Your task to perform on an android device: turn on priority inbox in the gmail app Image 0: 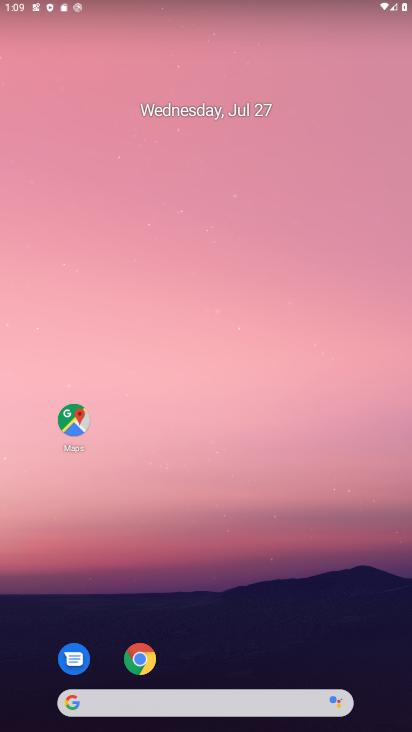
Step 0: drag from (227, 212) to (264, 4)
Your task to perform on an android device: turn on priority inbox in the gmail app Image 1: 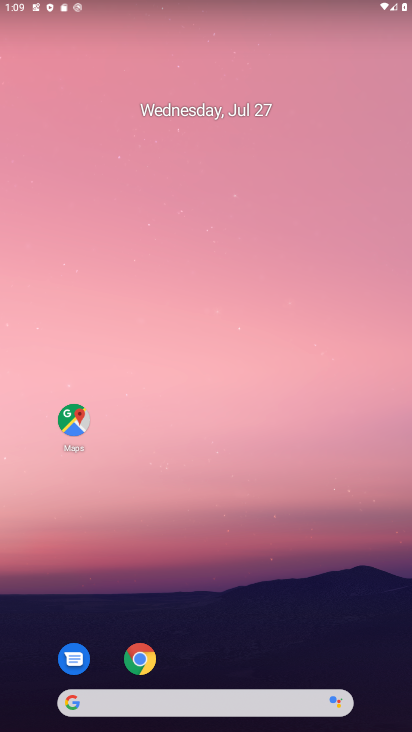
Step 1: drag from (270, 714) to (220, 102)
Your task to perform on an android device: turn on priority inbox in the gmail app Image 2: 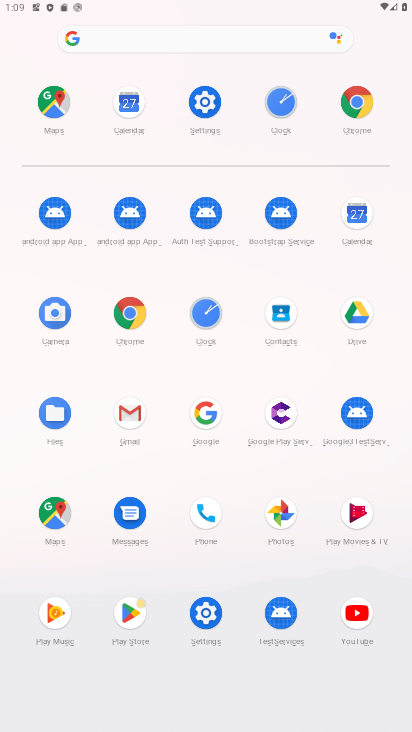
Step 2: click (132, 402)
Your task to perform on an android device: turn on priority inbox in the gmail app Image 3: 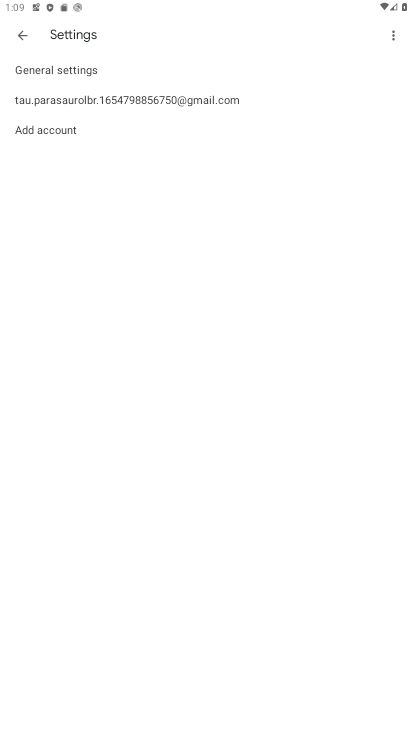
Step 3: click (91, 93)
Your task to perform on an android device: turn on priority inbox in the gmail app Image 4: 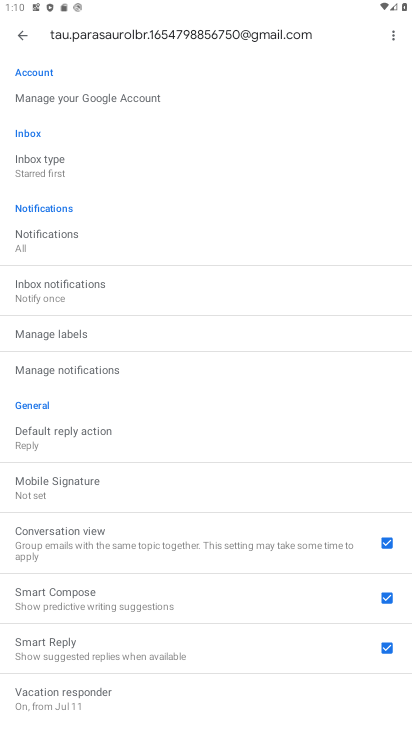
Step 4: click (43, 163)
Your task to perform on an android device: turn on priority inbox in the gmail app Image 5: 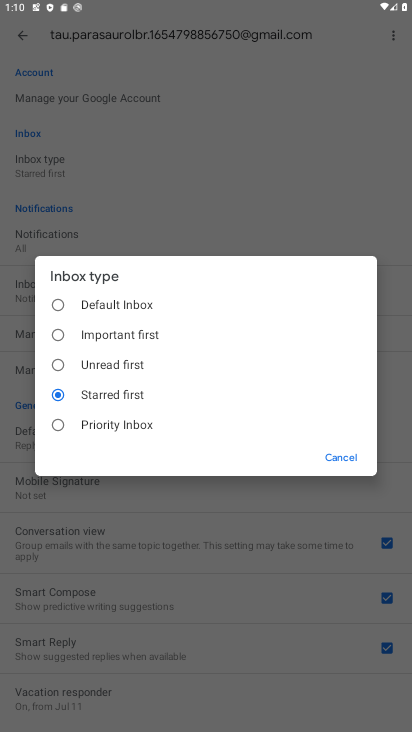
Step 5: task complete